Your task to perform on an android device: Go to internet settings Image 0: 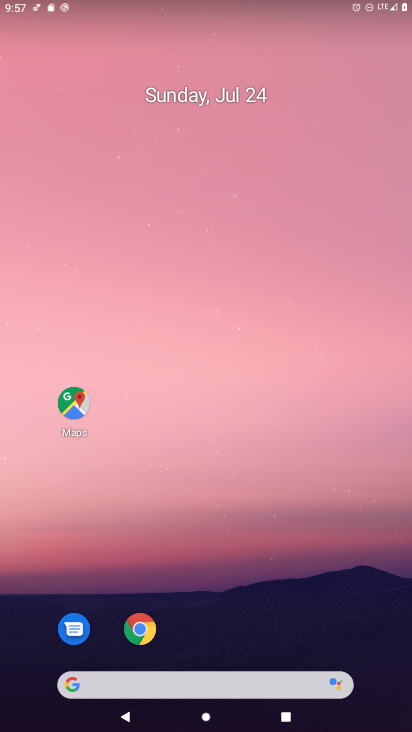
Step 0: drag from (365, 635) to (154, 29)
Your task to perform on an android device: Go to internet settings Image 1: 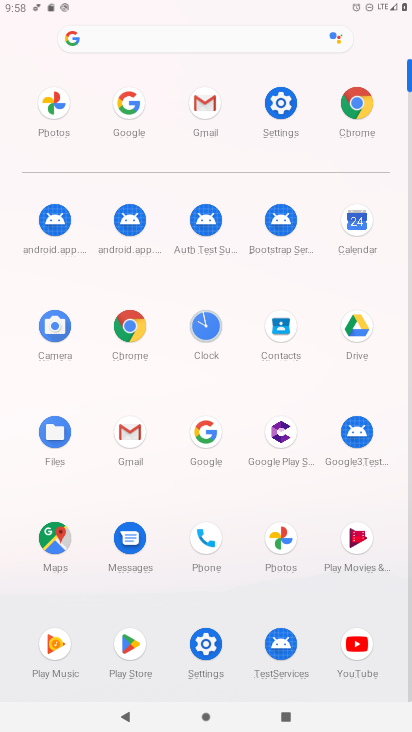
Step 1: click (202, 641)
Your task to perform on an android device: Go to internet settings Image 2: 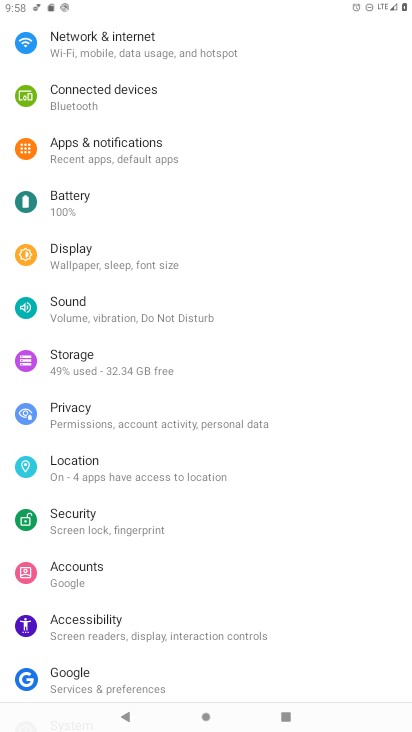
Step 2: click (141, 67)
Your task to perform on an android device: Go to internet settings Image 3: 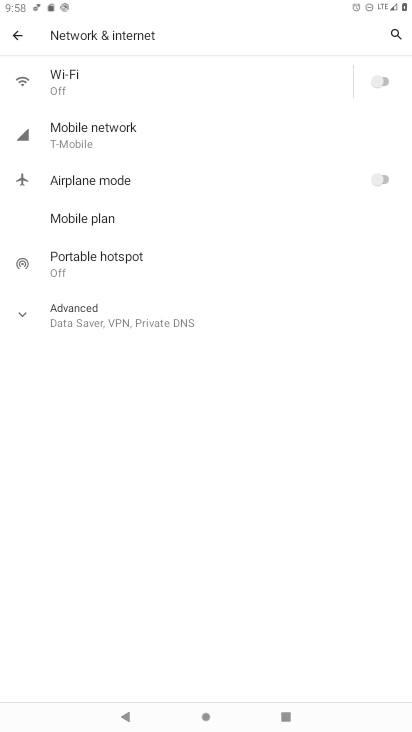
Step 3: task complete